Your task to perform on an android device: Go to Amazon Image 0: 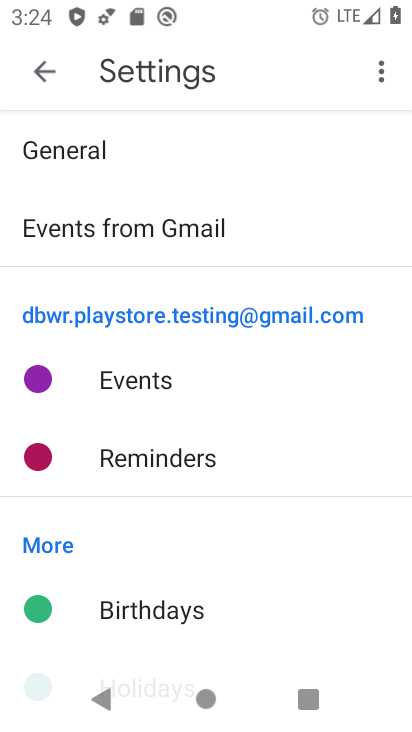
Step 0: press home button
Your task to perform on an android device: Go to Amazon Image 1: 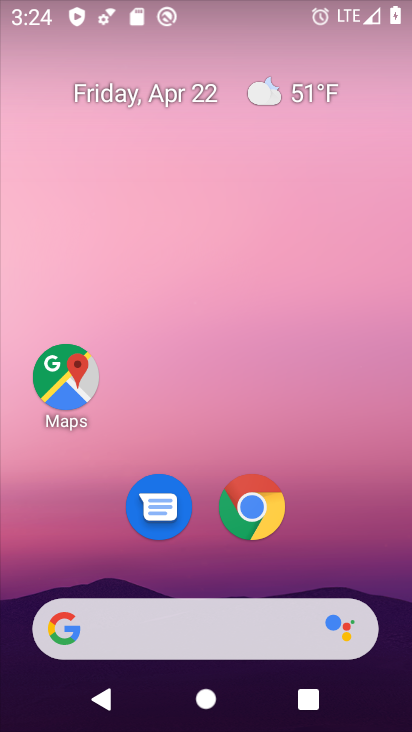
Step 1: click (262, 512)
Your task to perform on an android device: Go to Amazon Image 2: 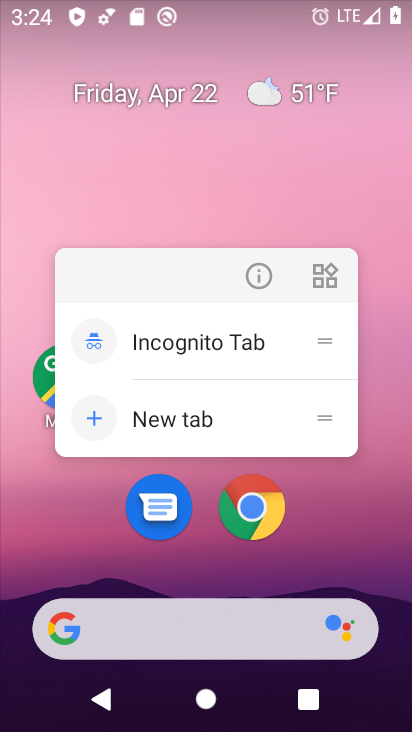
Step 2: click (257, 502)
Your task to perform on an android device: Go to Amazon Image 3: 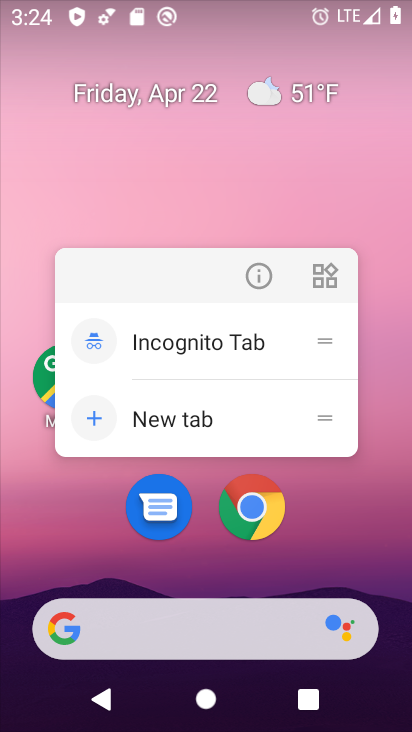
Step 3: click (261, 498)
Your task to perform on an android device: Go to Amazon Image 4: 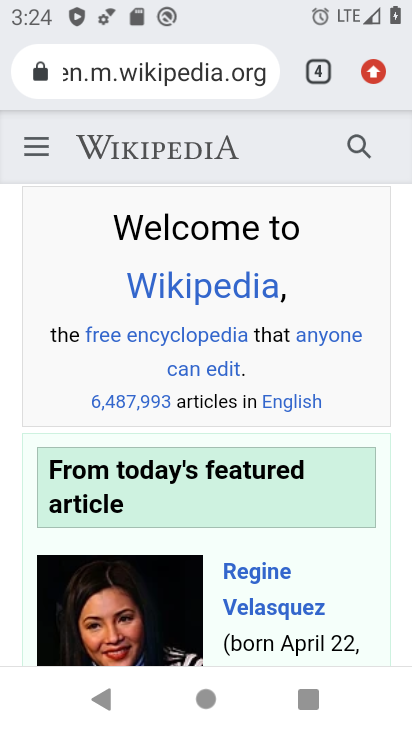
Step 4: click (305, 64)
Your task to perform on an android device: Go to Amazon Image 5: 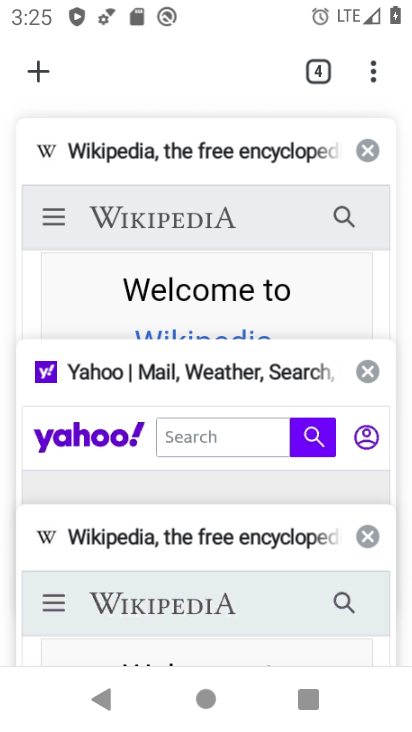
Step 5: click (21, 66)
Your task to perform on an android device: Go to Amazon Image 6: 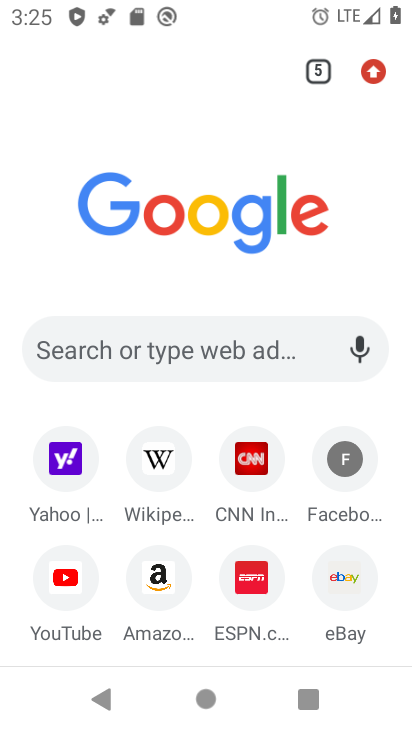
Step 6: click (130, 582)
Your task to perform on an android device: Go to Amazon Image 7: 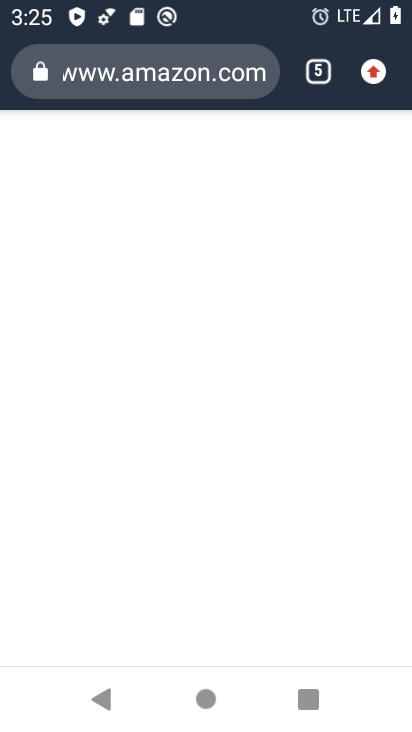
Step 7: task complete